Your task to perform on an android device: all mails in gmail Image 0: 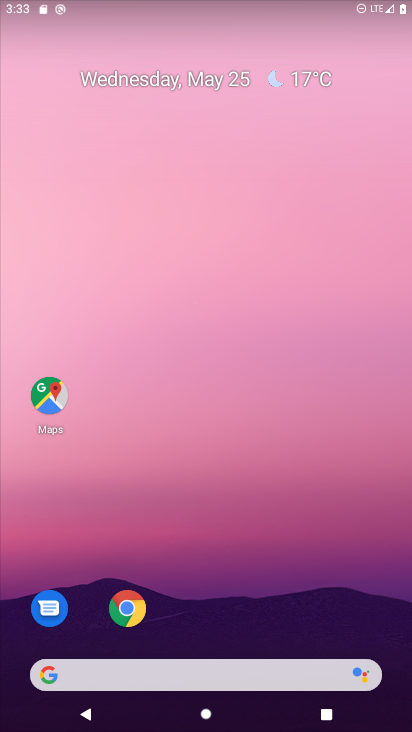
Step 0: drag from (371, 604) to (335, 94)
Your task to perform on an android device: all mails in gmail Image 1: 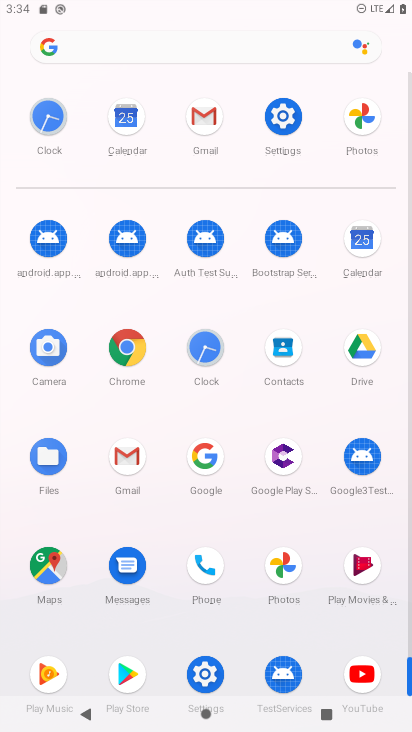
Step 1: click (125, 456)
Your task to perform on an android device: all mails in gmail Image 2: 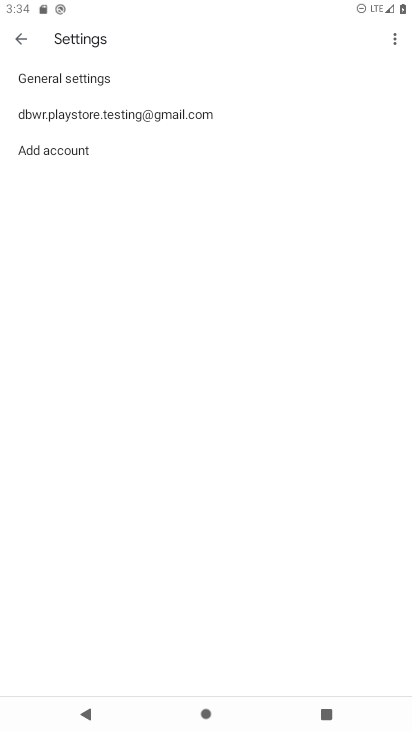
Step 2: press back button
Your task to perform on an android device: all mails in gmail Image 3: 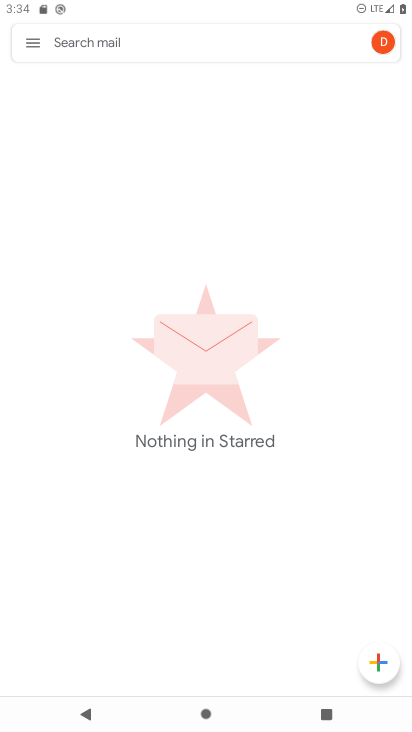
Step 3: click (21, 41)
Your task to perform on an android device: all mails in gmail Image 4: 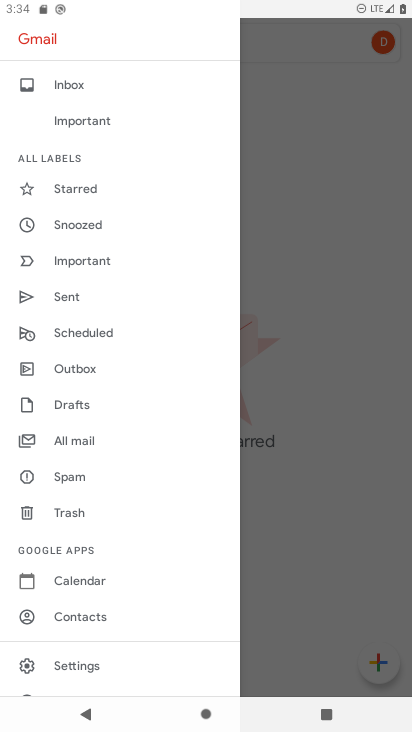
Step 4: click (79, 435)
Your task to perform on an android device: all mails in gmail Image 5: 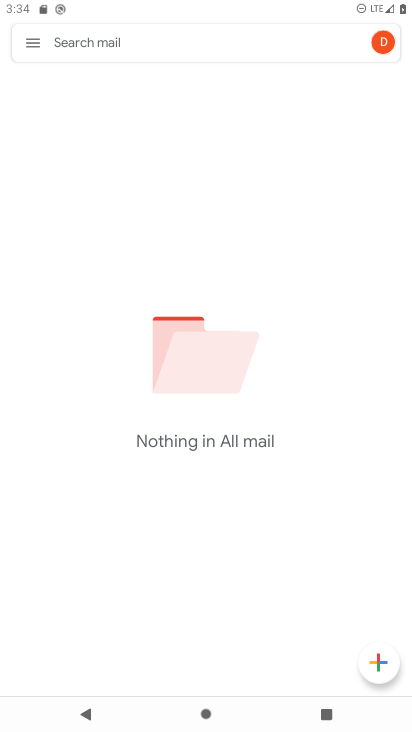
Step 5: task complete